Your task to perform on an android device: Do I have any events today? Image 0: 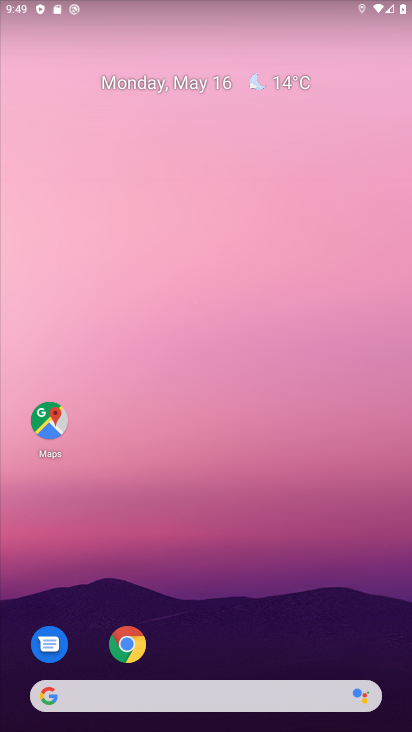
Step 0: drag from (286, 620) to (288, 304)
Your task to perform on an android device: Do I have any events today? Image 1: 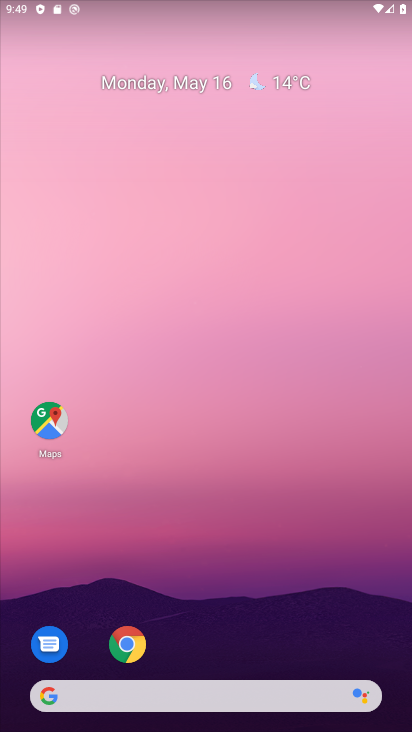
Step 1: drag from (238, 588) to (214, 124)
Your task to perform on an android device: Do I have any events today? Image 2: 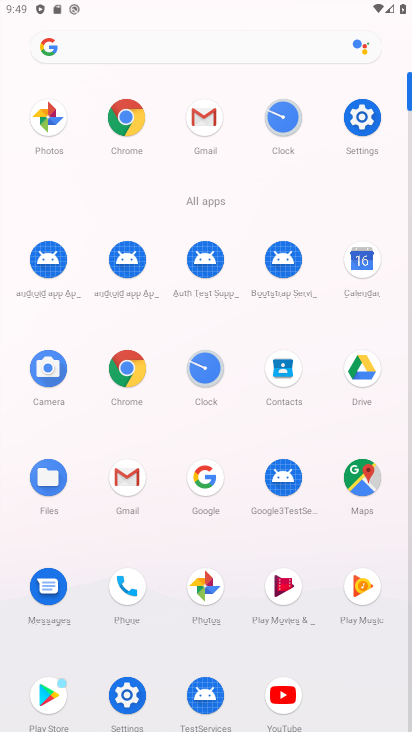
Step 2: click (363, 265)
Your task to perform on an android device: Do I have any events today? Image 3: 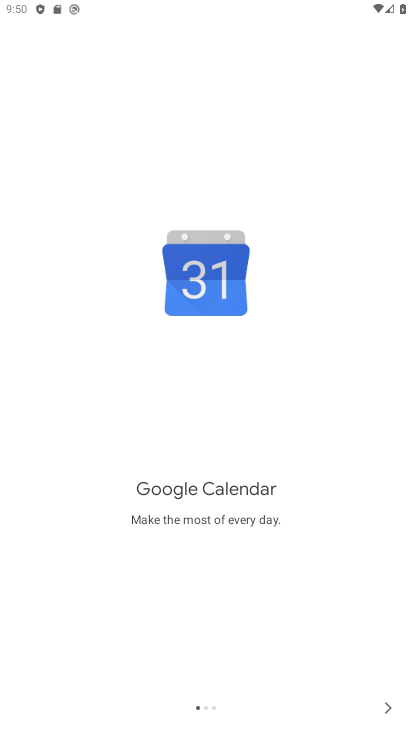
Step 3: click (390, 703)
Your task to perform on an android device: Do I have any events today? Image 4: 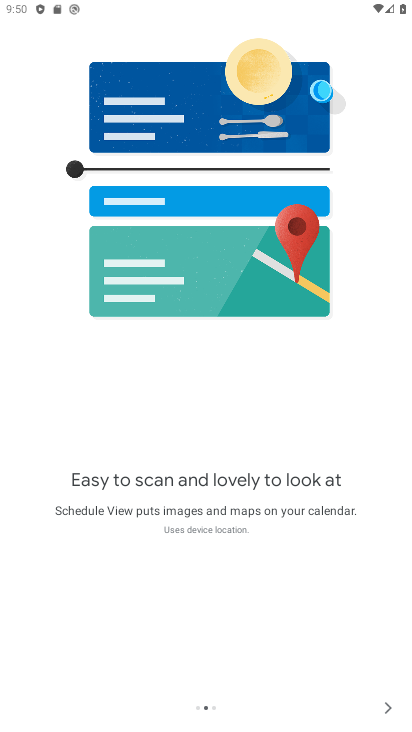
Step 4: click (390, 703)
Your task to perform on an android device: Do I have any events today? Image 5: 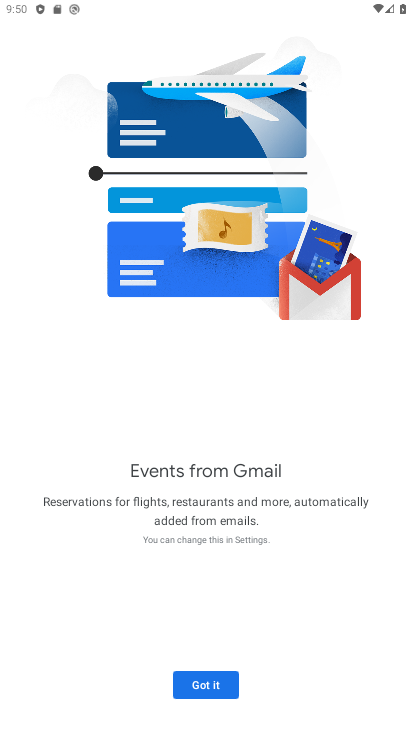
Step 5: click (219, 682)
Your task to perform on an android device: Do I have any events today? Image 6: 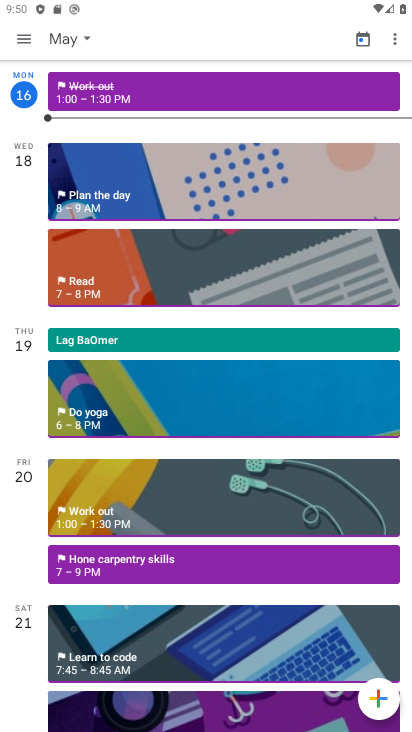
Step 6: task complete